Your task to perform on an android device: Open wifi settings Image 0: 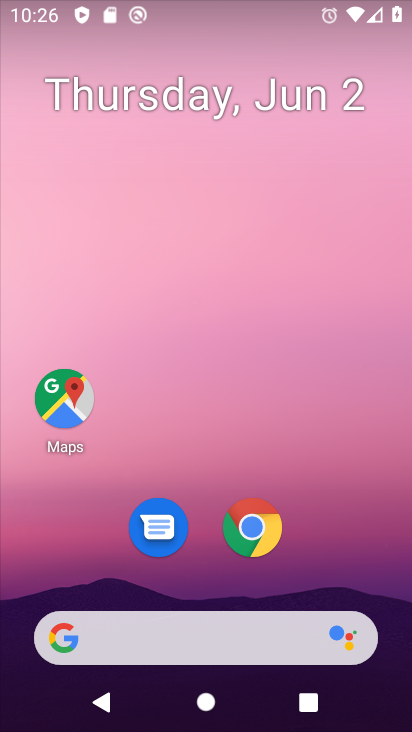
Step 0: drag from (160, 636) to (144, 117)
Your task to perform on an android device: Open wifi settings Image 1: 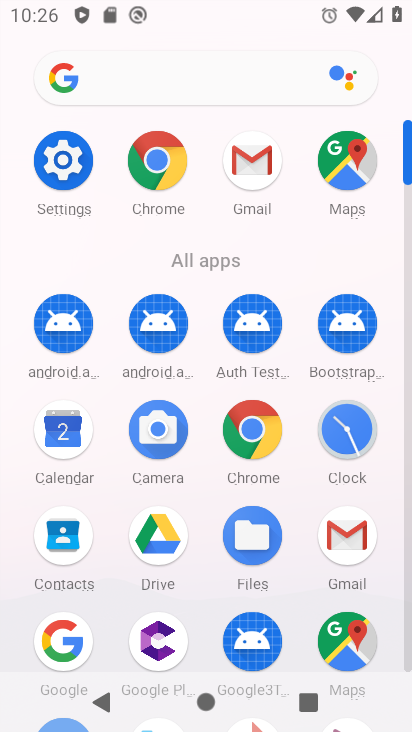
Step 1: click (64, 182)
Your task to perform on an android device: Open wifi settings Image 2: 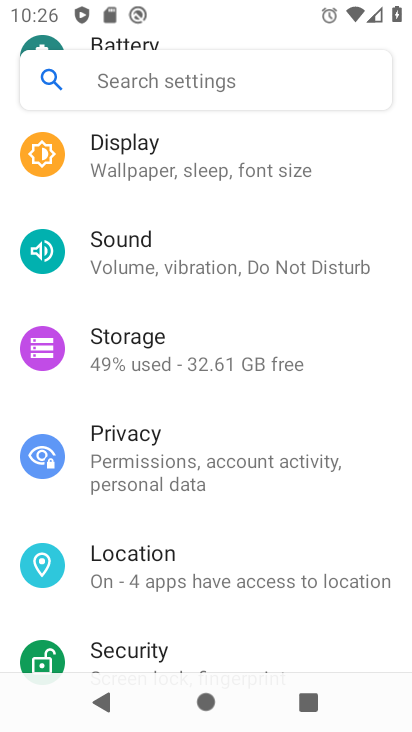
Step 2: drag from (104, 138) to (112, 715)
Your task to perform on an android device: Open wifi settings Image 3: 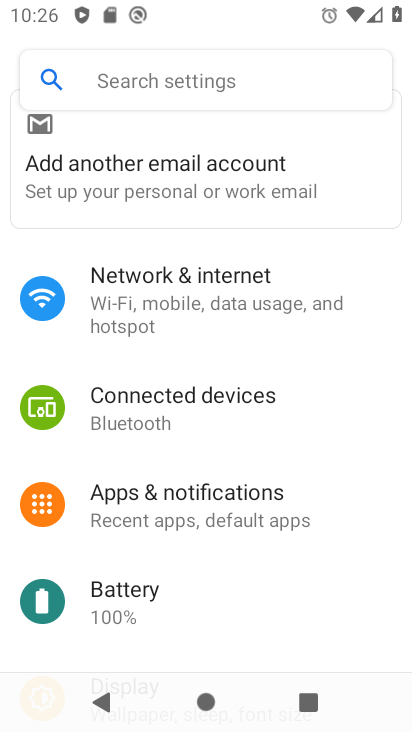
Step 3: click (183, 280)
Your task to perform on an android device: Open wifi settings Image 4: 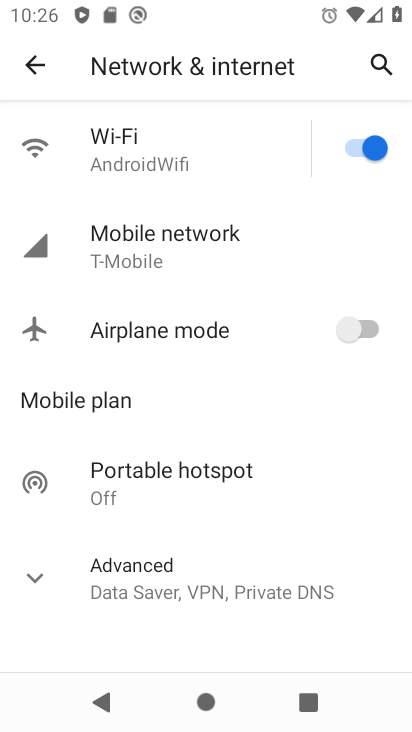
Step 4: click (100, 149)
Your task to perform on an android device: Open wifi settings Image 5: 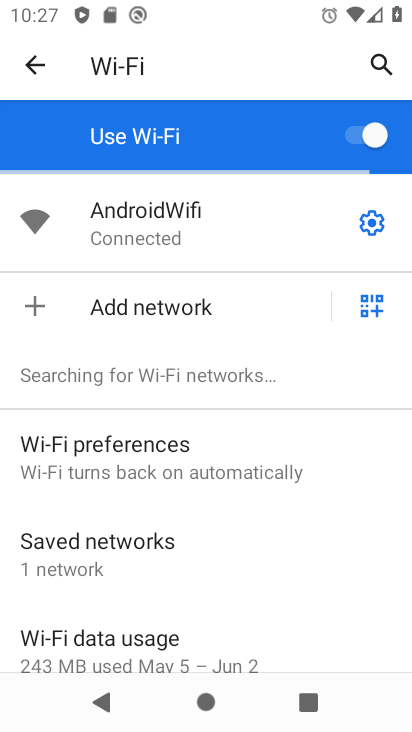
Step 5: task complete